Your task to perform on an android device: Go to settings Image 0: 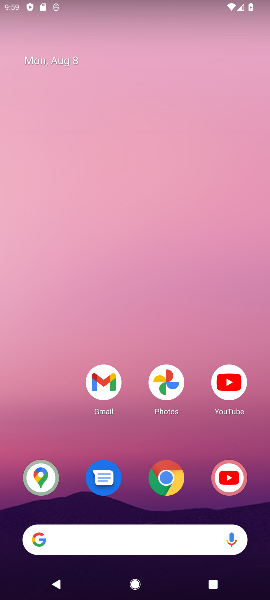
Step 0: drag from (133, 511) to (101, 9)
Your task to perform on an android device: Go to settings Image 1: 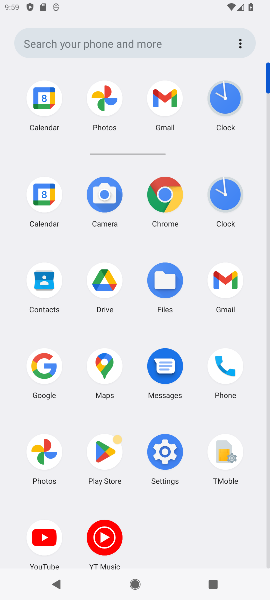
Step 1: click (140, 443)
Your task to perform on an android device: Go to settings Image 2: 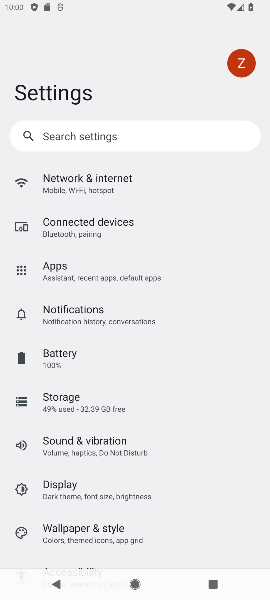
Step 2: task complete